Your task to perform on an android device: install app "Google Find My Device" Image 0: 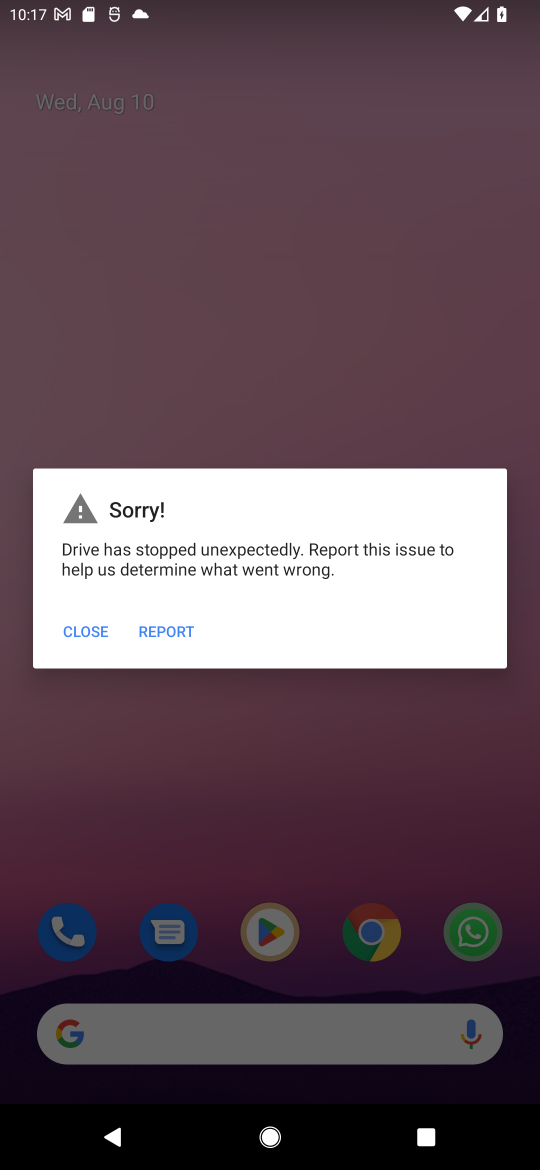
Step 0: press home button
Your task to perform on an android device: install app "Google Find My Device" Image 1: 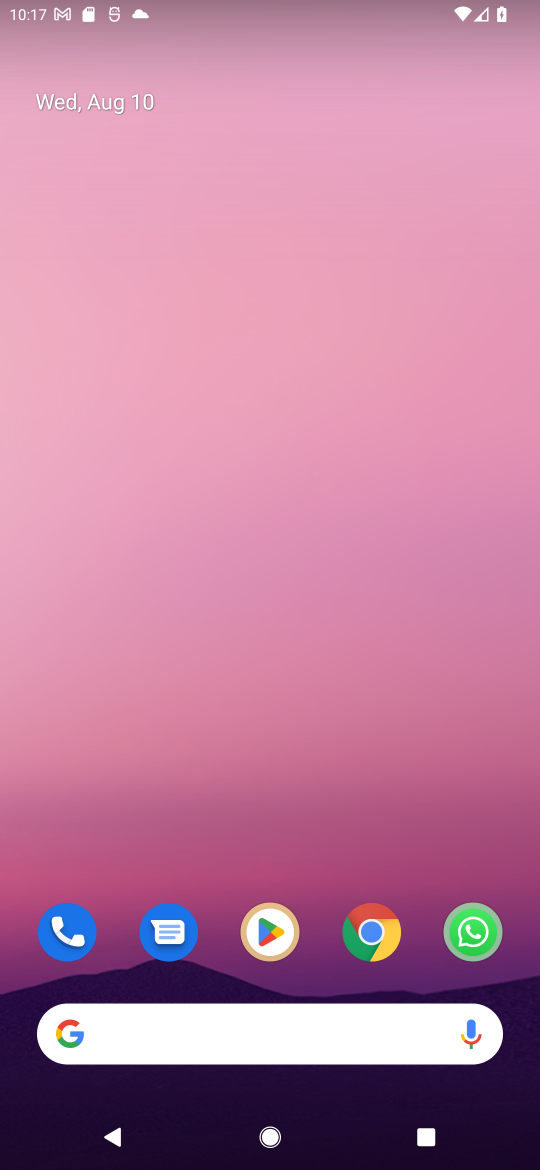
Step 1: click (263, 927)
Your task to perform on an android device: install app "Google Find My Device" Image 2: 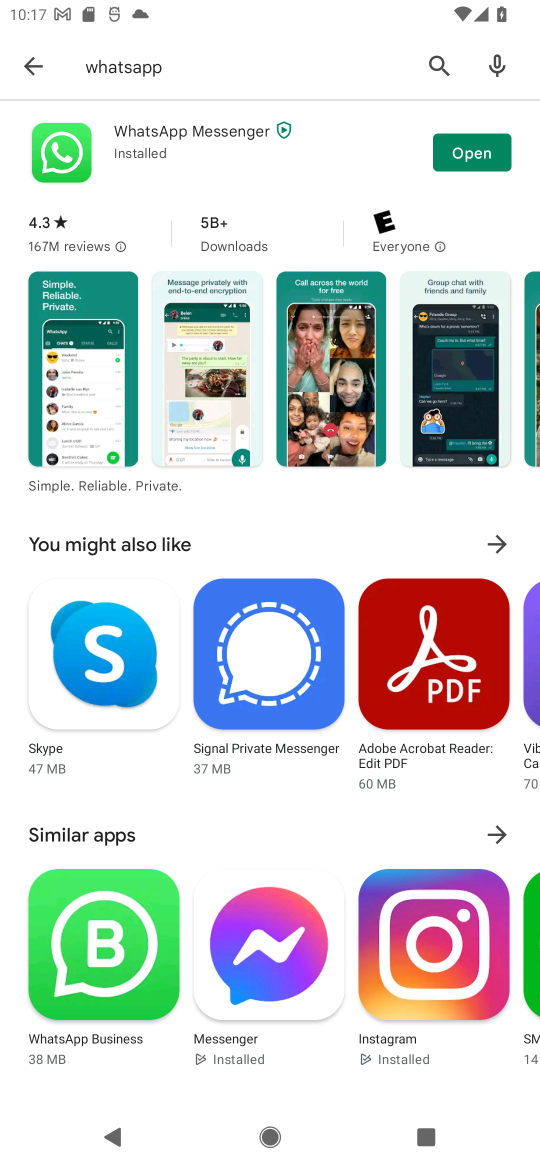
Step 2: click (440, 71)
Your task to perform on an android device: install app "Google Find My Device" Image 3: 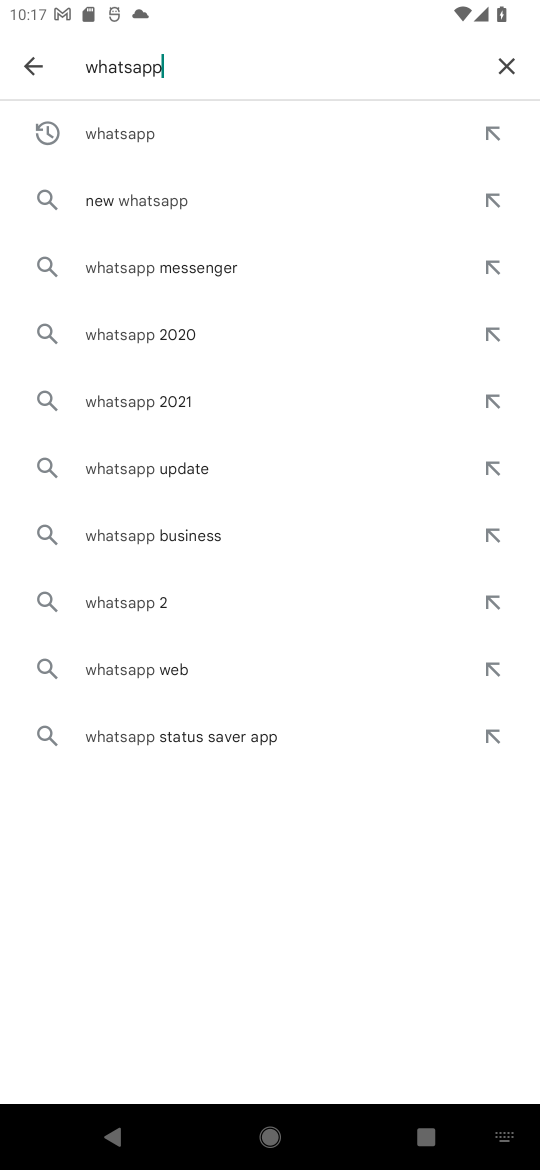
Step 3: click (501, 63)
Your task to perform on an android device: install app "Google Find My Device" Image 4: 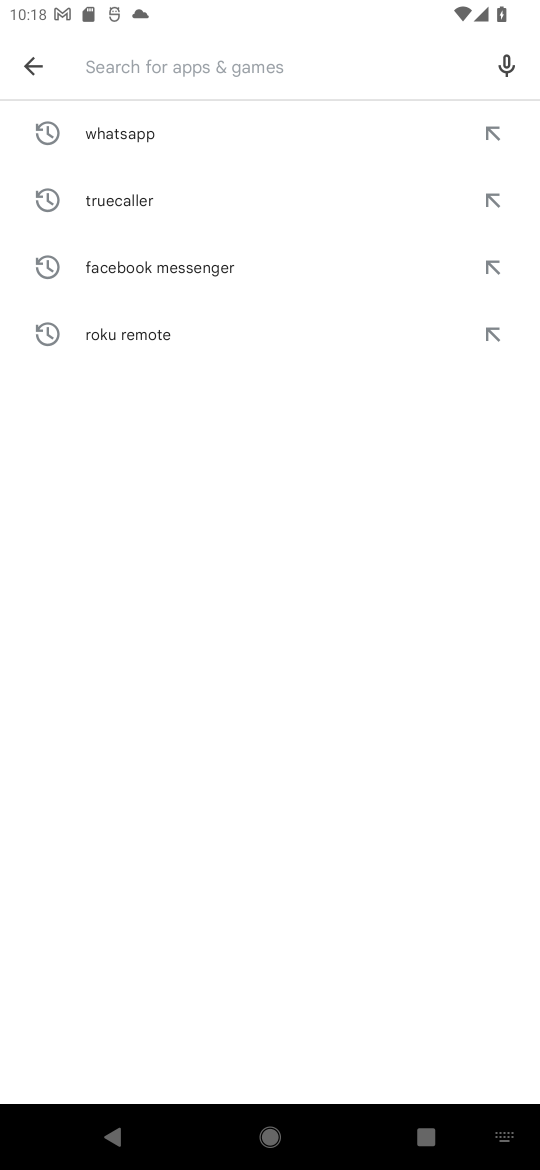
Step 4: type "google find my device"
Your task to perform on an android device: install app "Google Find My Device" Image 5: 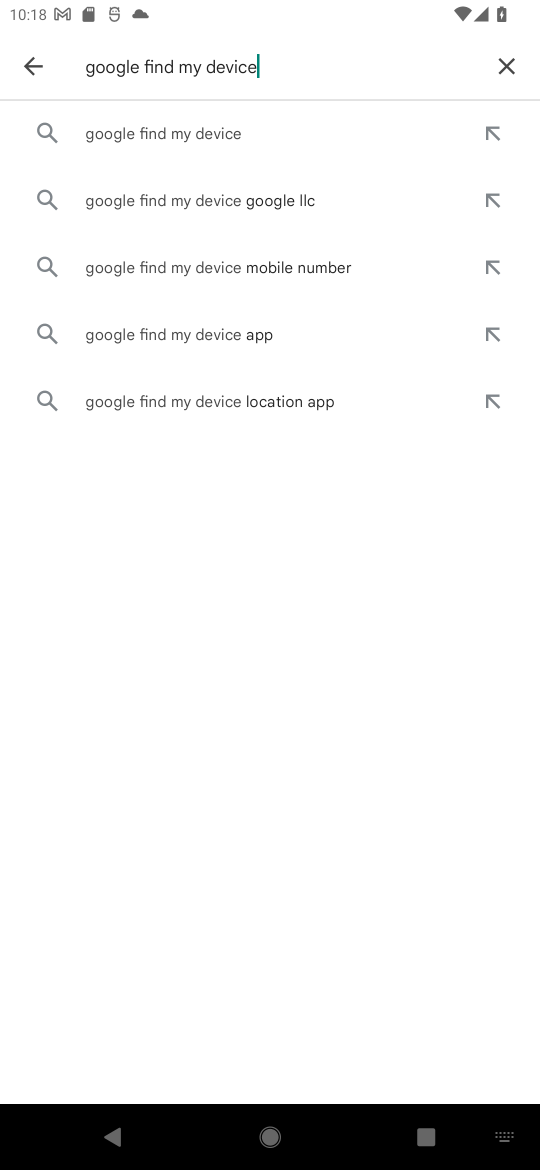
Step 5: click (270, 125)
Your task to perform on an android device: install app "Google Find My Device" Image 6: 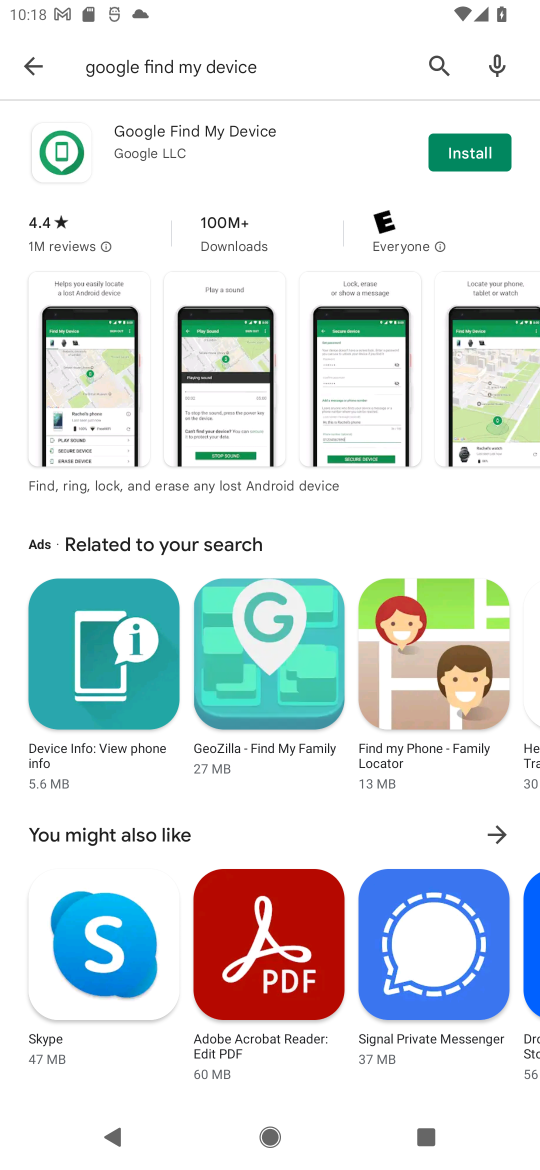
Step 6: click (457, 163)
Your task to perform on an android device: install app "Google Find My Device" Image 7: 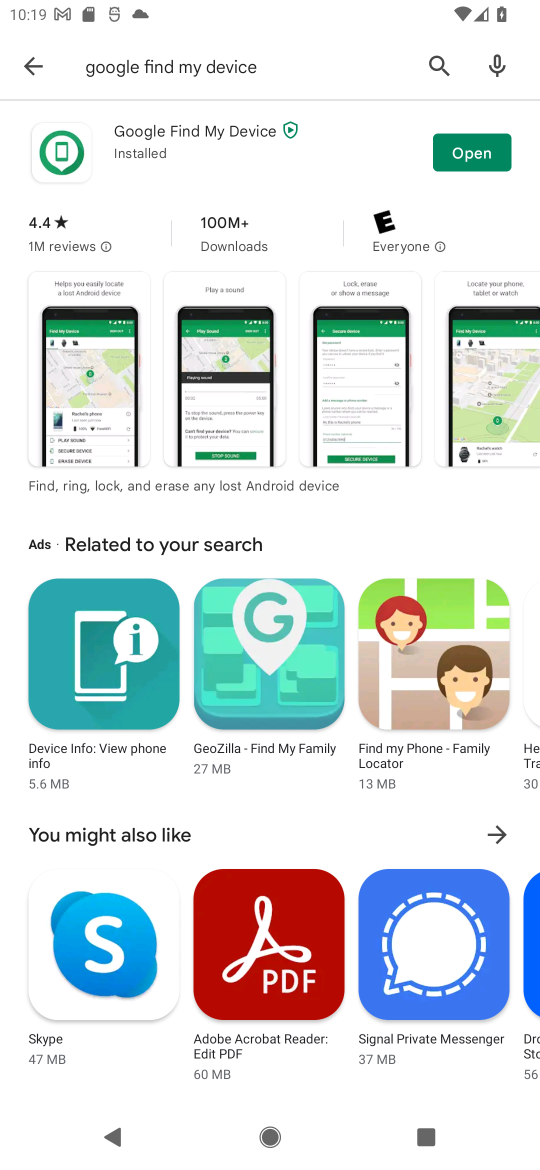
Step 7: task complete